Your task to perform on an android device: turn off improve location accuracy Image 0: 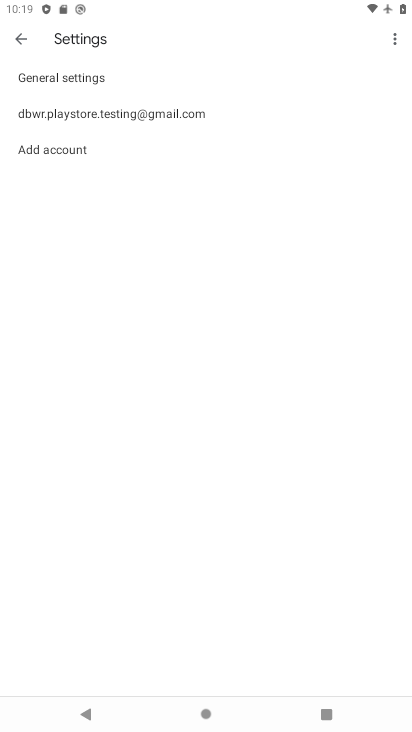
Step 0: press home button
Your task to perform on an android device: turn off improve location accuracy Image 1: 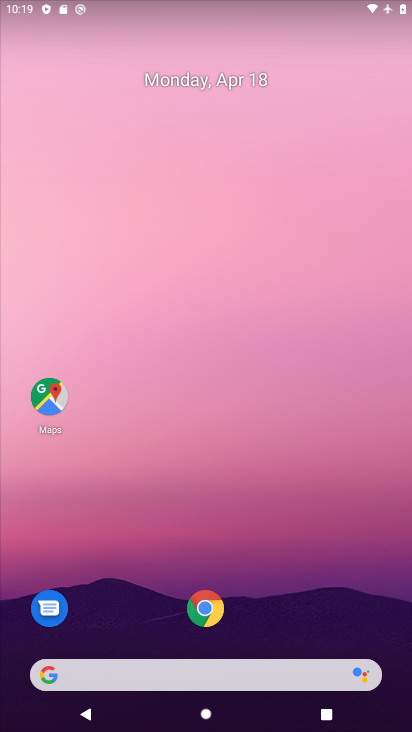
Step 1: drag from (267, 643) to (286, 135)
Your task to perform on an android device: turn off improve location accuracy Image 2: 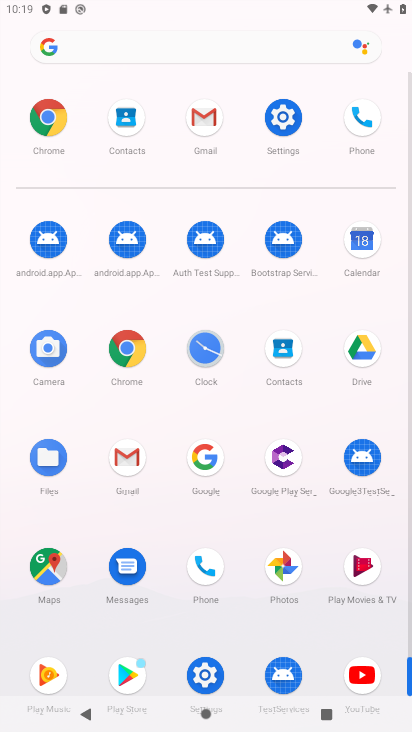
Step 2: click (287, 123)
Your task to perform on an android device: turn off improve location accuracy Image 3: 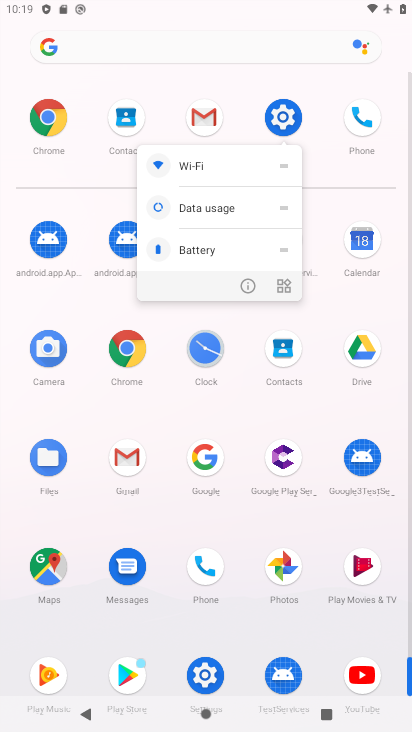
Step 3: click (287, 123)
Your task to perform on an android device: turn off improve location accuracy Image 4: 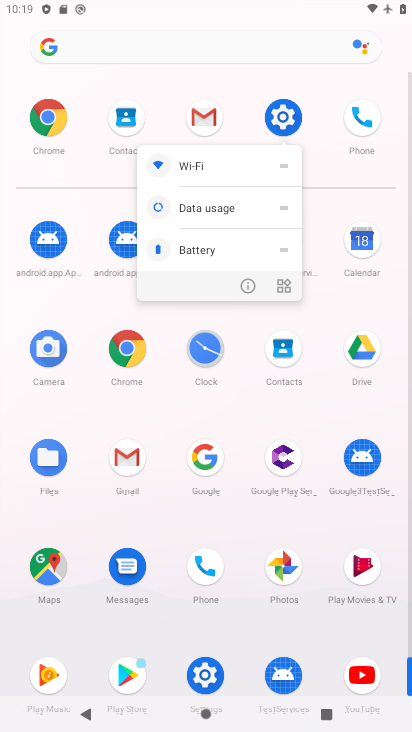
Step 4: click (287, 123)
Your task to perform on an android device: turn off improve location accuracy Image 5: 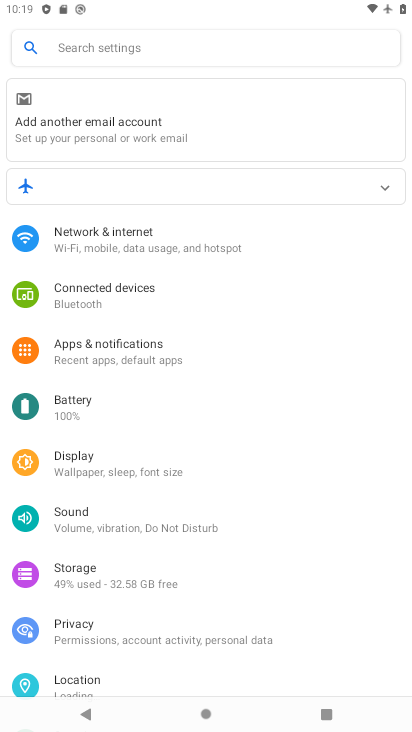
Step 5: drag from (148, 634) to (140, 499)
Your task to perform on an android device: turn off improve location accuracy Image 6: 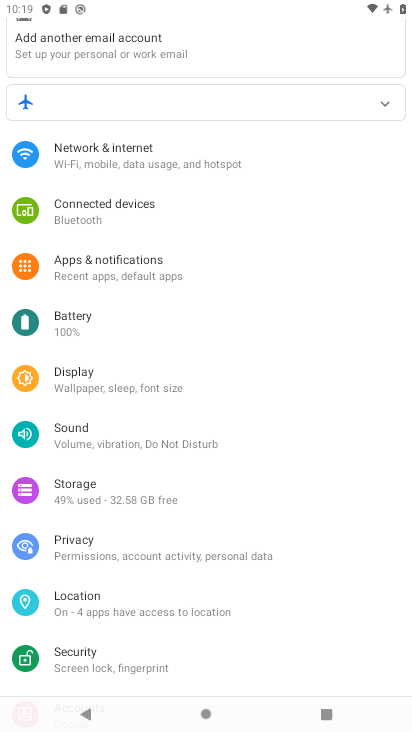
Step 6: click (108, 607)
Your task to perform on an android device: turn off improve location accuracy Image 7: 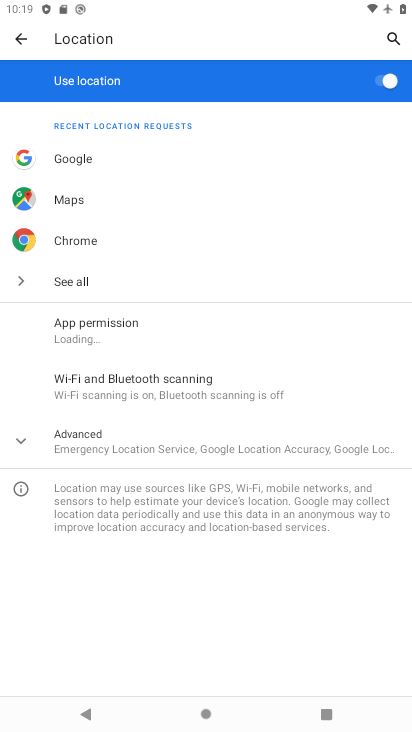
Step 7: click (13, 446)
Your task to perform on an android device: turn off improve location accuracy Image 8: 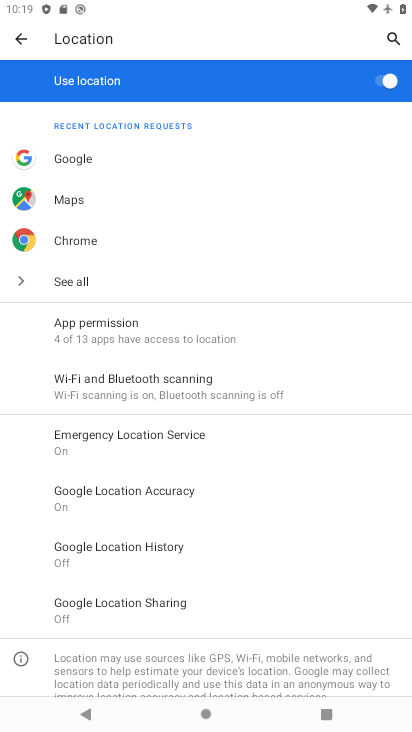
Step 8: click (174, 485)
Your task to perform on an android device: turn off improve location accuracy Image 9: 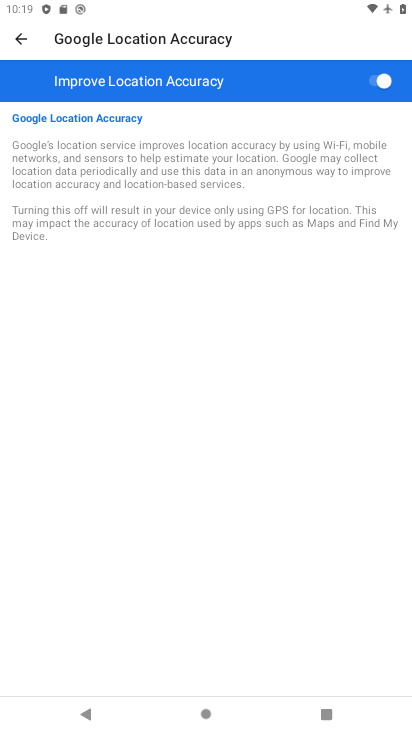
Step 9: click (377, 78)
Your task to perform on an android device: turn off improve location accuracy Image 10: 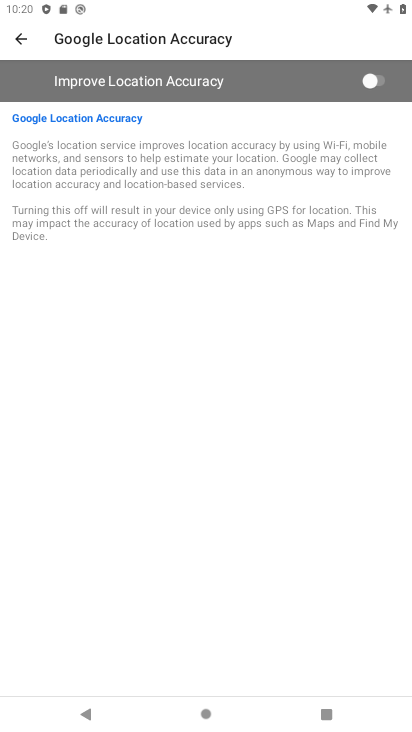
Step 10: task complete